Your task to perform on an android device: Open Reddit.com Image 0: 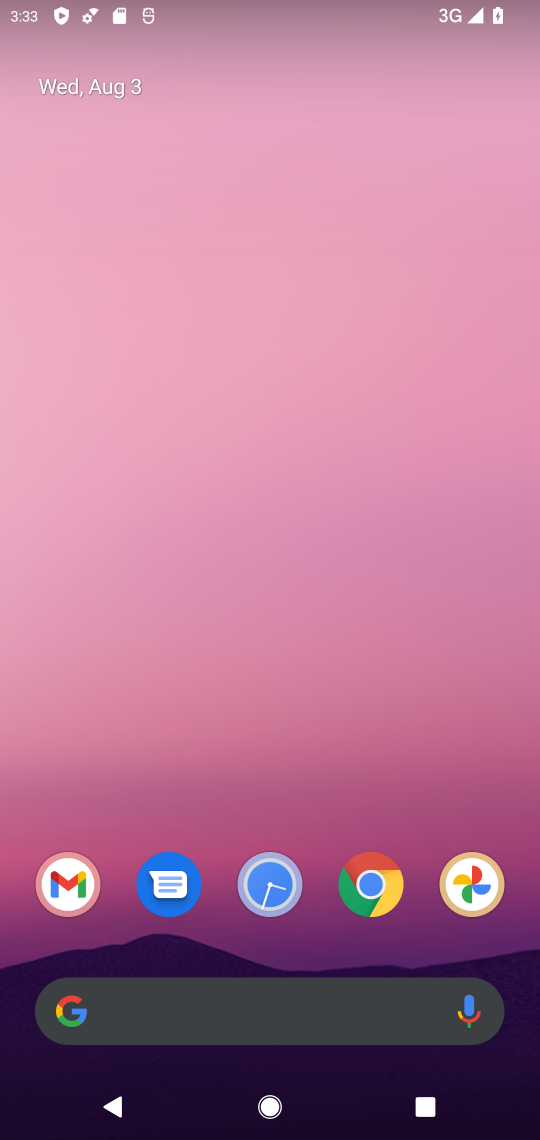
Step 0: click (383, 894)
Your task to perform on an android device: Open Reddit.com Image 1: 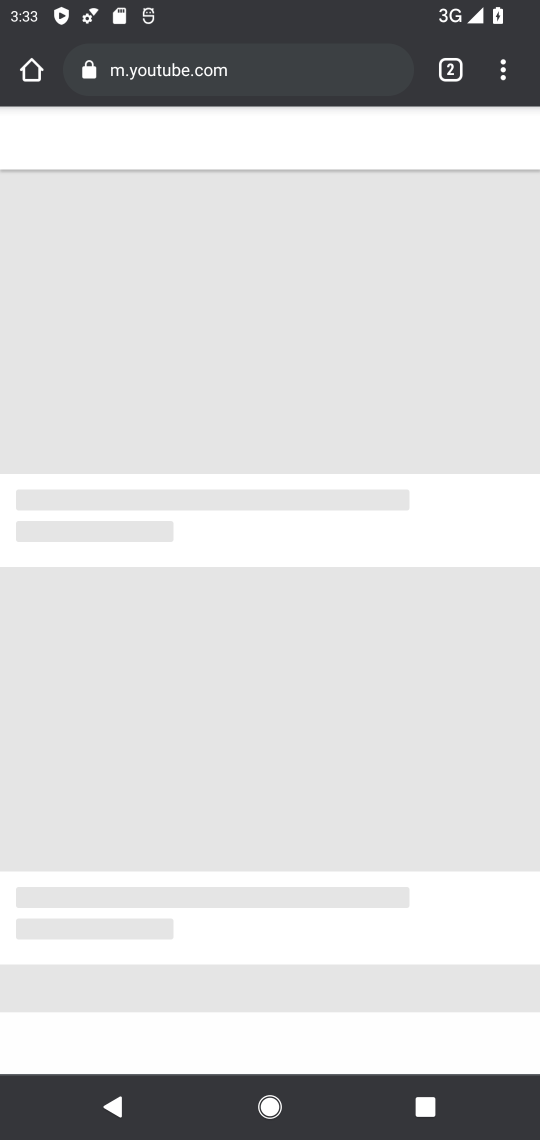
Step 1: click (349, 57)
Your task to perform on an android device: Open Reddit.com Image 2: 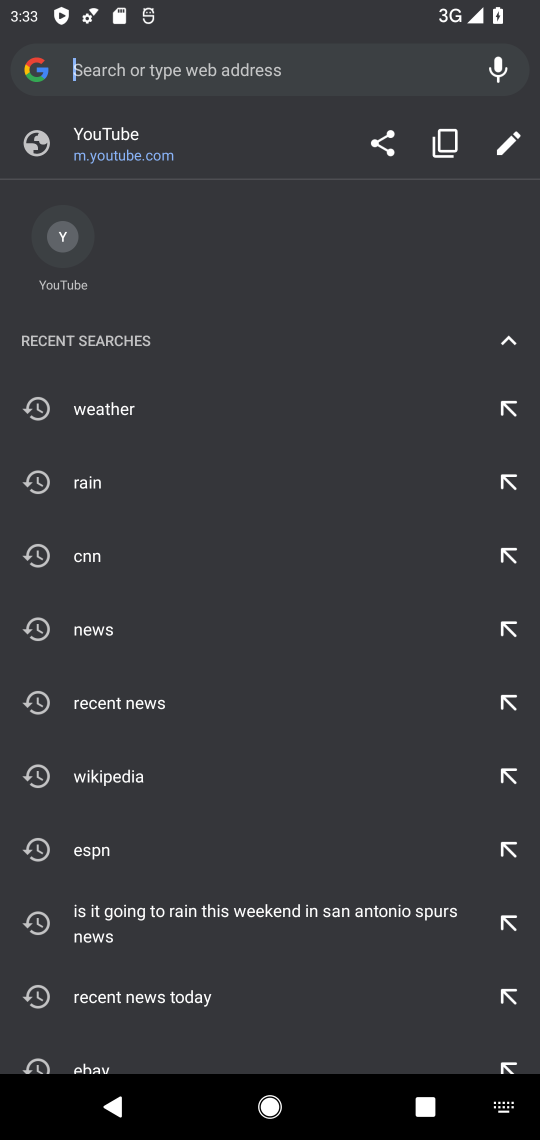
Step 2: type "reddit"
Your task to perform on an android device: Open Reddit.com Image 3: 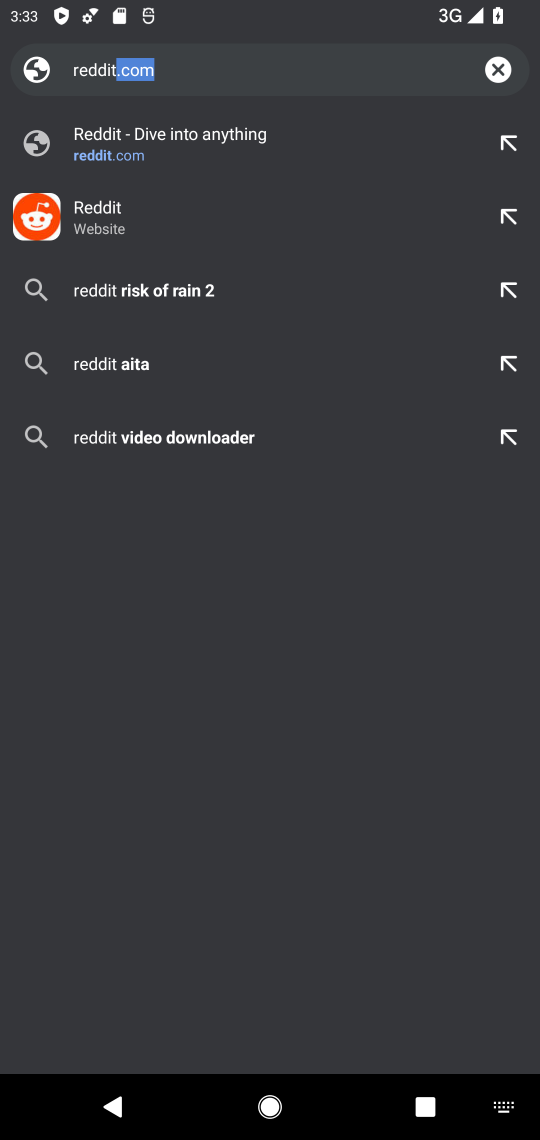
Step 3: click (106, 191)
Your task to perform on an android device: Open Reddit.com Image 4: 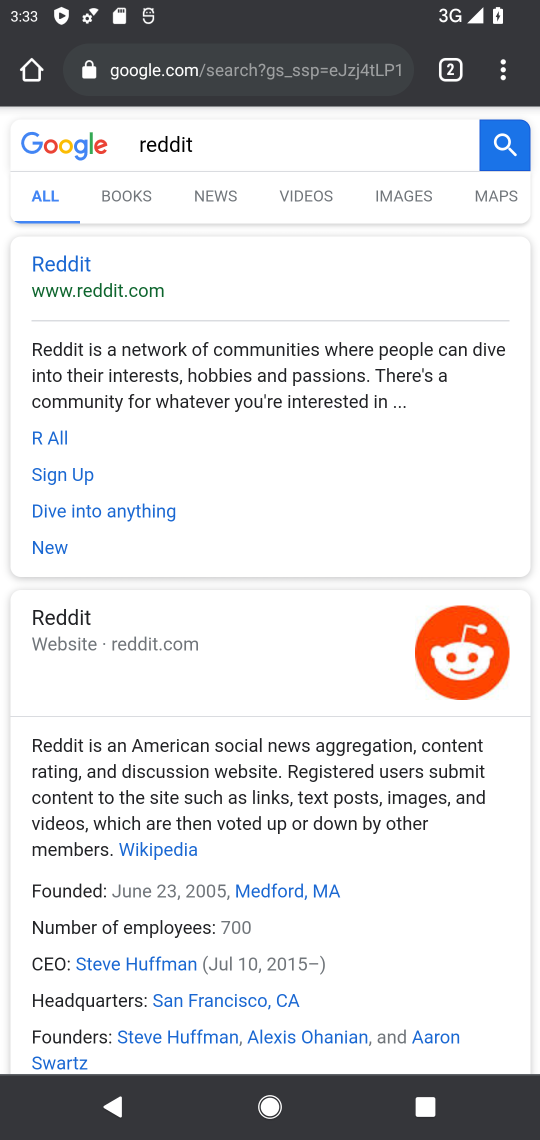
Step 4: click (91, 258)
Your task to perform on an android device: Open Reddit.com Image 5: 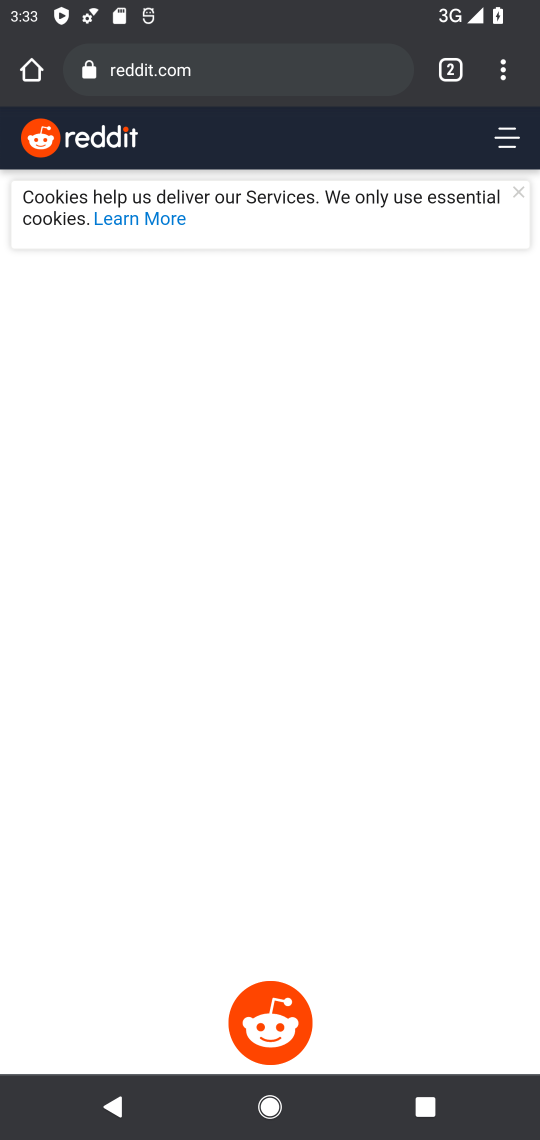
Step 5: task complete